Your task to perform on an android device: See recent photos Image 0: 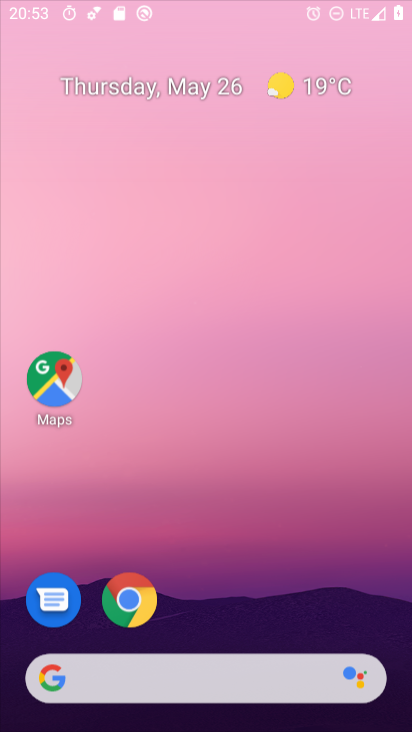
Step 0: press home button
Your task to perform on an android device: See recent photos Image 1: 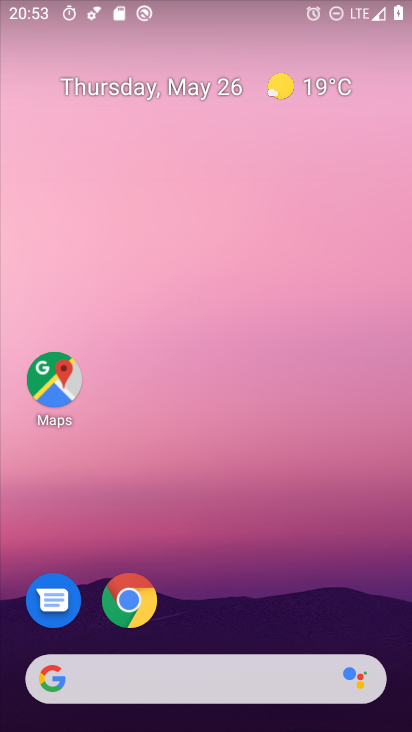
Step 1: drag from (249, 626) to (253, 231)
Your task to perform on an android device: See recent photos Image 2: 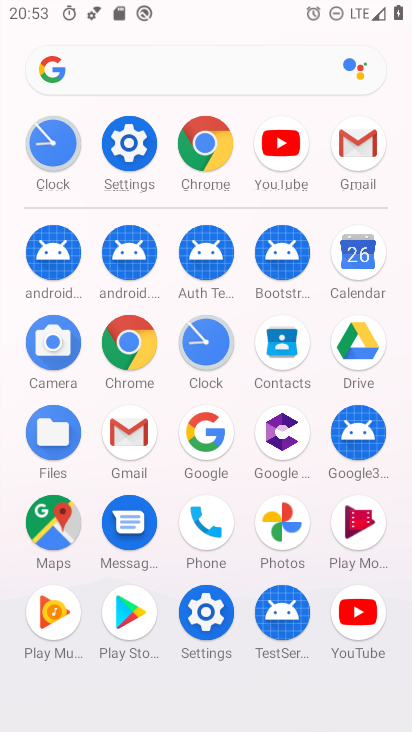
Step 2: click (285, 523)
Your task to perform on an android device: See recent photos Image 3: 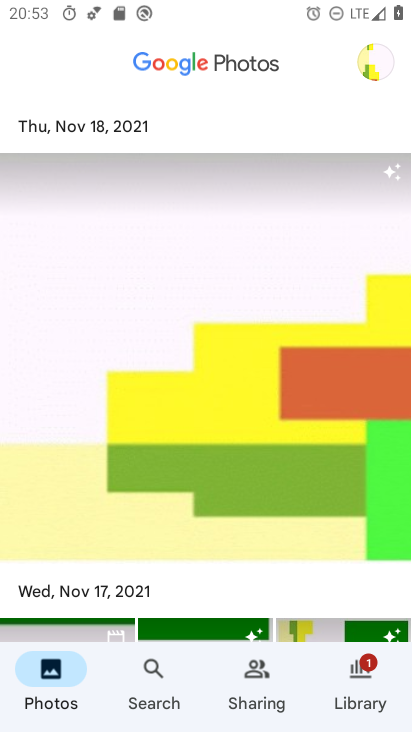
Step 3: click (50, 670)
Your task to perform on an android device: See recent photos Image 4: 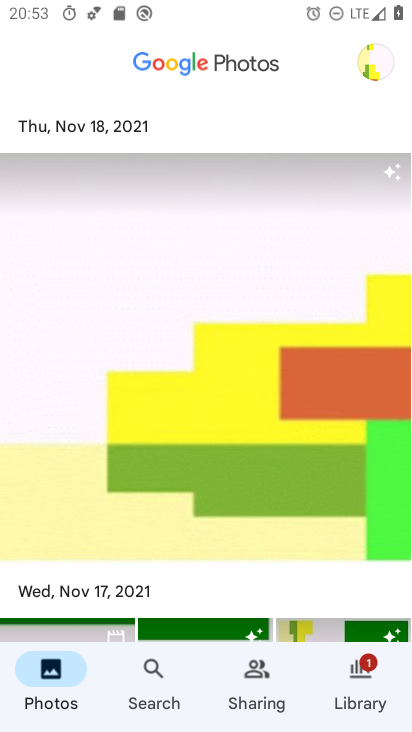
Step 4: task complete